Your task to perform on an android device: Go to wifi settings Image 0: 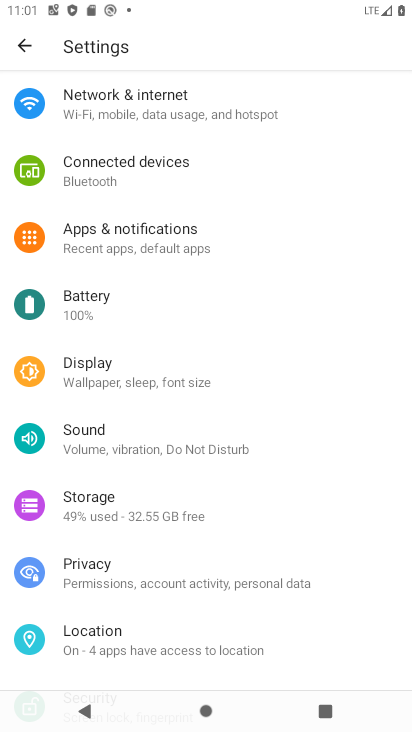
Step 0: click (123, 94)
Your task to perform on an android device: Go to wifi settings Image 1: 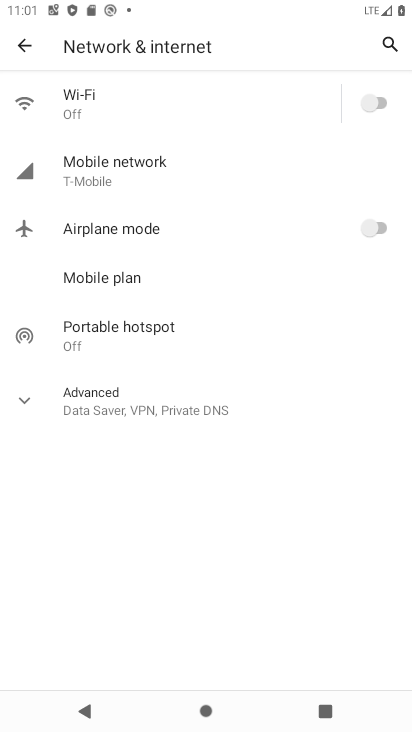
Step 1: click (123, 94)
Your task to perform on an android device: Go to wifi settings Image 2: 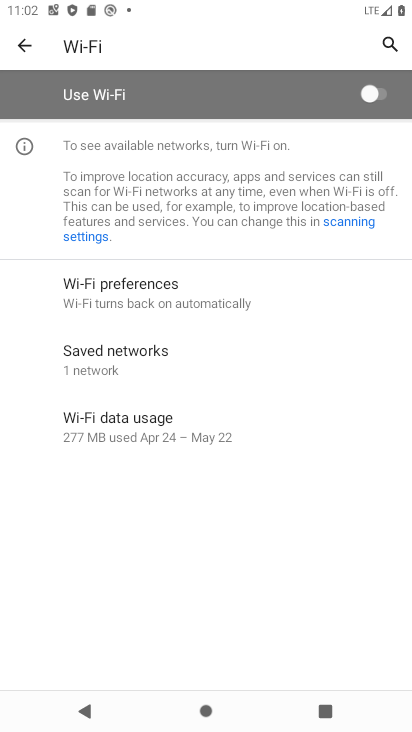
Step 2: task complete